Your task to perform on an android device: Open Amazon Image 0: 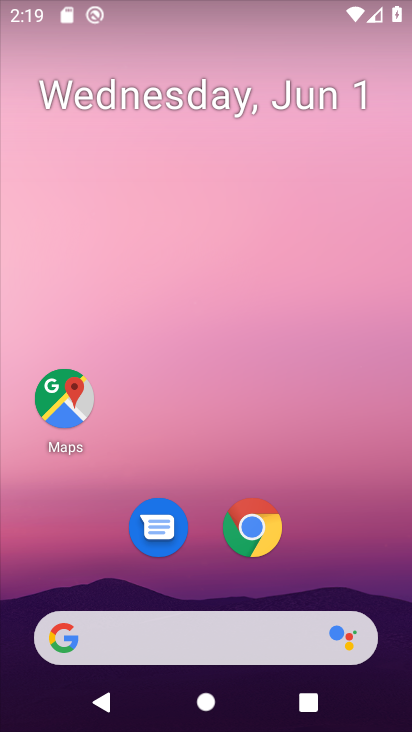
Step 0: click (242, 525)
Your task to perform on an android device: Open Amazon Image 1: 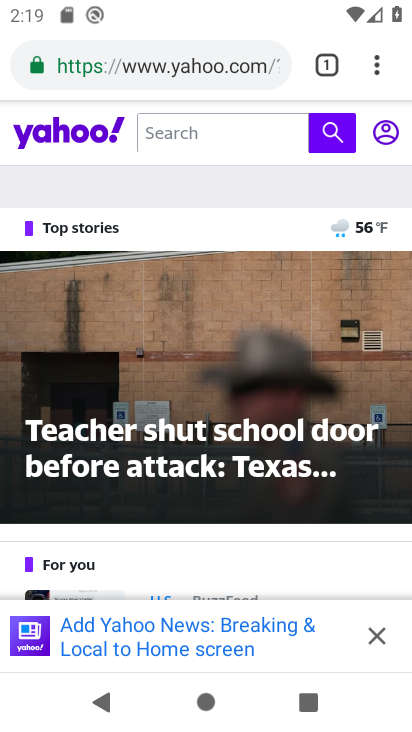
Step 1: click (183, 62)
Your task to perform on an android device: Open Amazon Image 2: 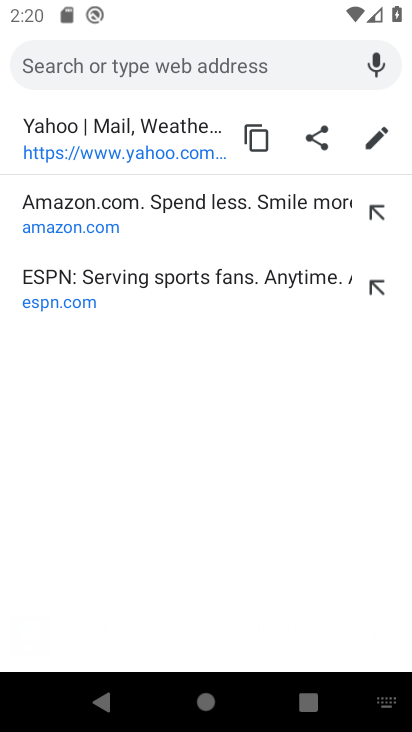
Step 2: type "Amazon"
Your task to perform on an android device: Open Amazon Image 3: 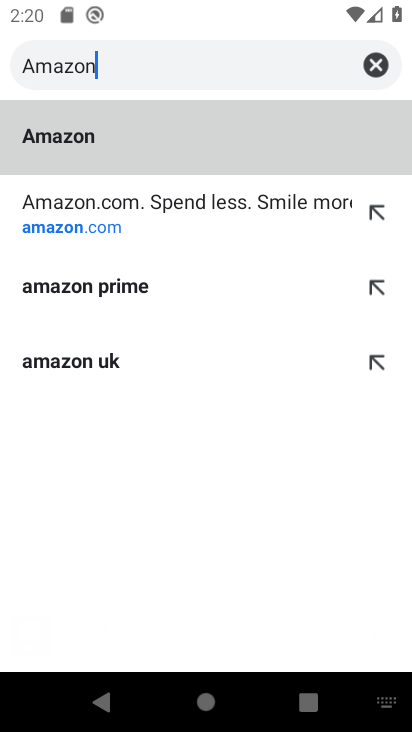
Step 3: click (101, 203)
Your task to perform on an android device: Open Amazon Image 4: 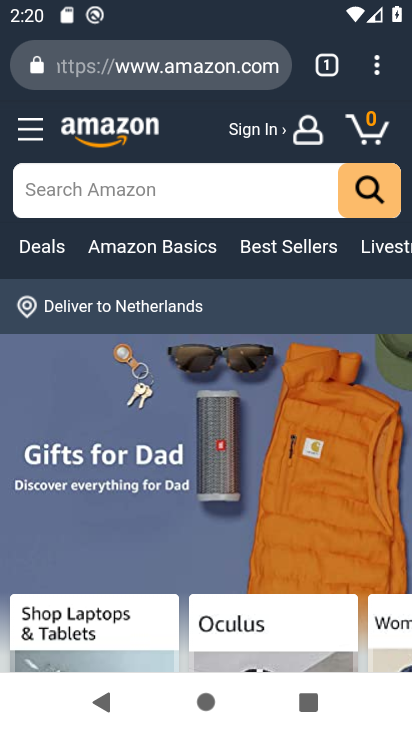
Step 4: task complete